Your task to perform on an android device: Check the weather Image 0: 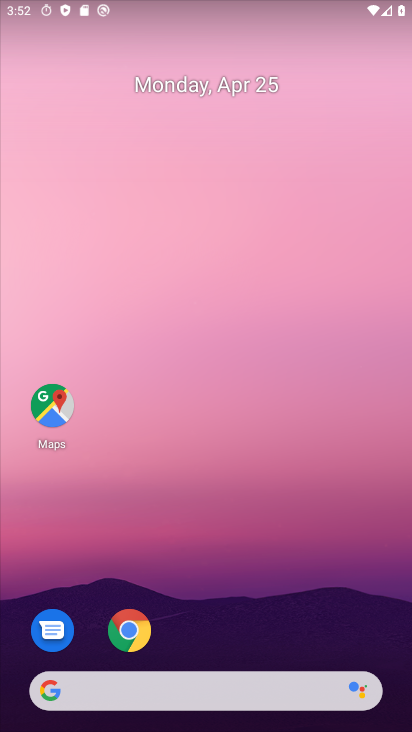
Step 0: drag from (301, 514) to (331, 80)
Your task to perform on an android device: Check the weather Image 1: 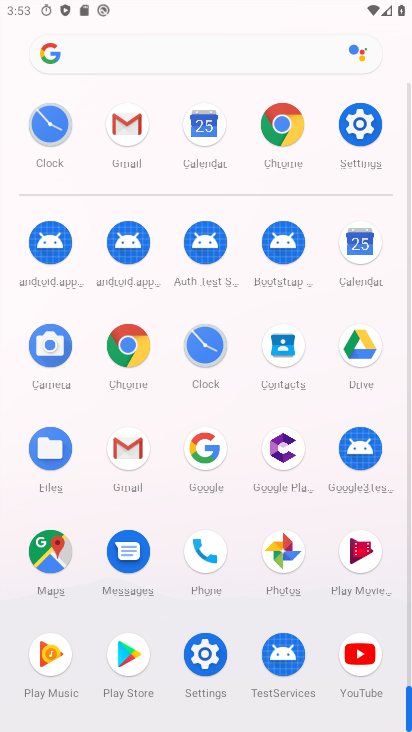
Step 1: click (209, 442)
Your task to perform on an android device: Check the weather Image 2: 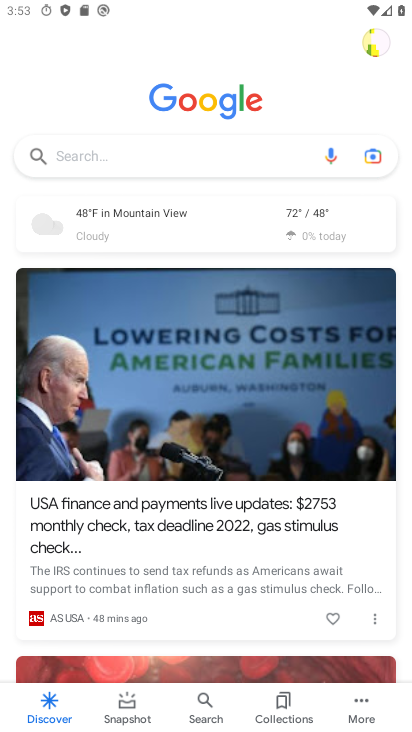
Step 2: click (171, 215)
Your task to perform on an android device: Check the weather Image 3: 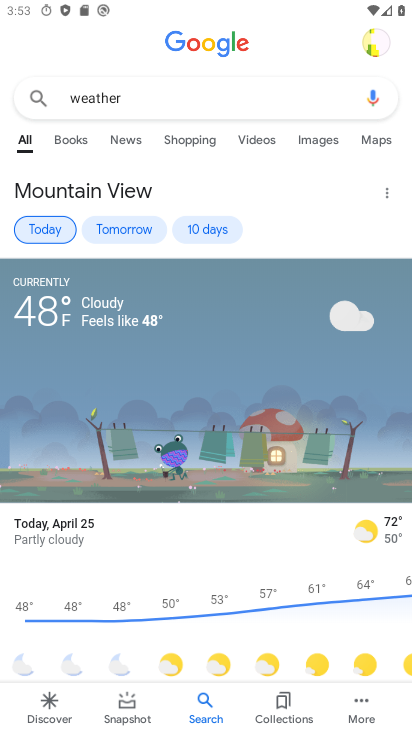
Step 3: task complete